Your task to perform on an android device: Do I have any events this weekend? Image 0: 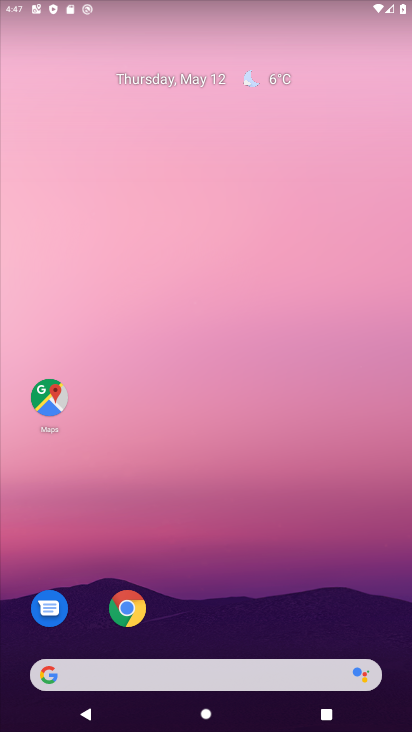
Step 0: click (197, 95)
Your task to perform on an android device: Do I have any events this weekend? Image 1: 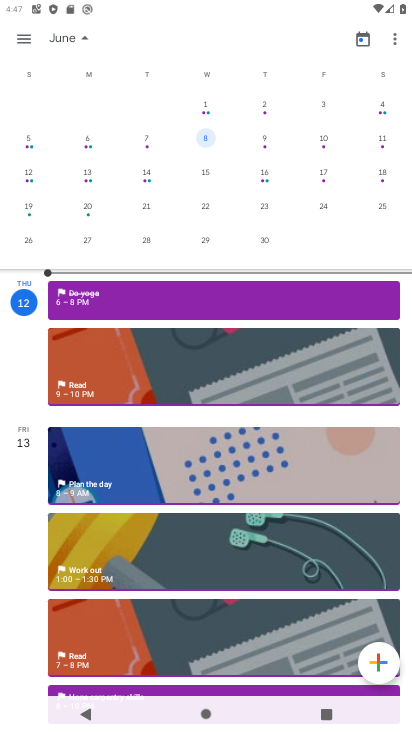
Step 1: click (70, 42)
Your task to perform on an android device: Do I have any events this weekend? Image 2: 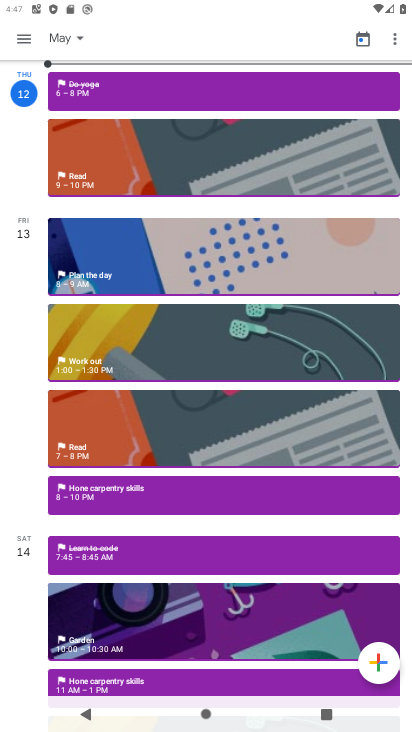
Step 2: click (70, 42)
Your task to perform on an android device: Do I have any events this weekend? Image 3: 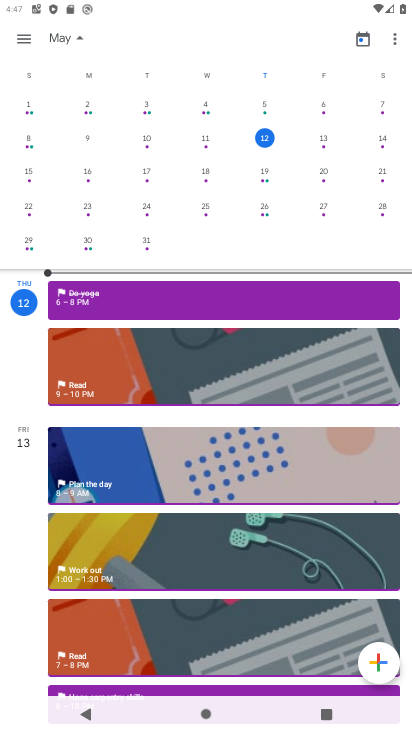
Step 3: click (381, 149)
Your task to perform on an android device: Do I have any events this weekend? Image 4: 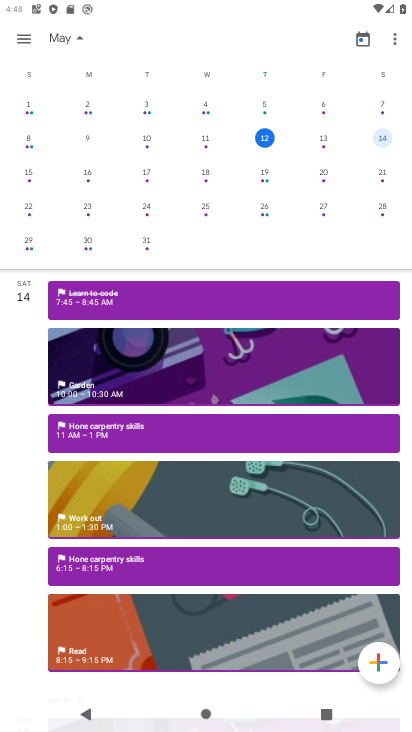
Step 4: task complete